Your task to perform on an android device: check the backup settings in the google photos Image 0: 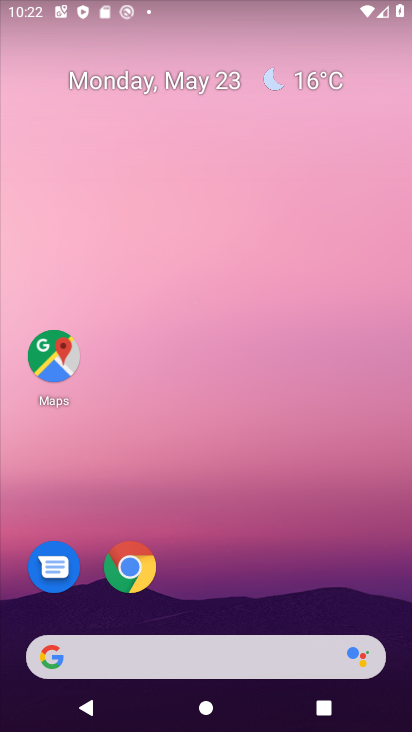
Step 0: drag from (263, 366) to (291, 121)
Your task to perform on an android device: check the backup settings in the google photos Image 1: 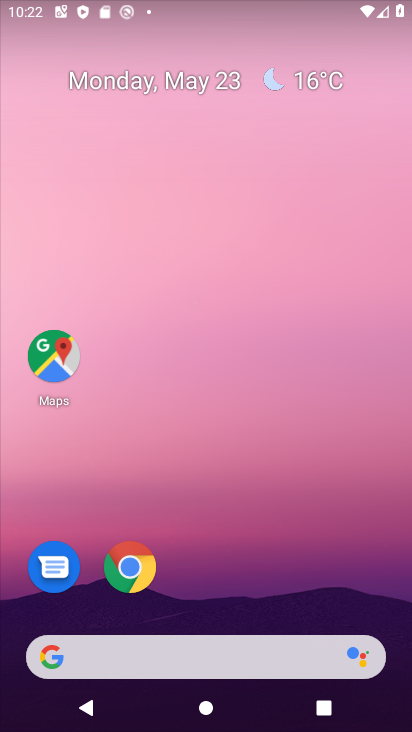
Step 1: drag from (184, 617) to (242, 86)
Your task to perform on an android device: check the backup settings in the google photos Image 2: 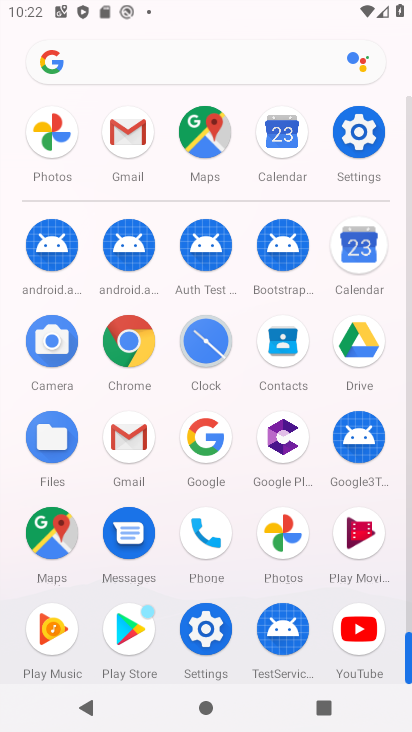
Step 2: click (277, 537)
Your task to perform on an android device: check the backup settings in the google photos Image 3: 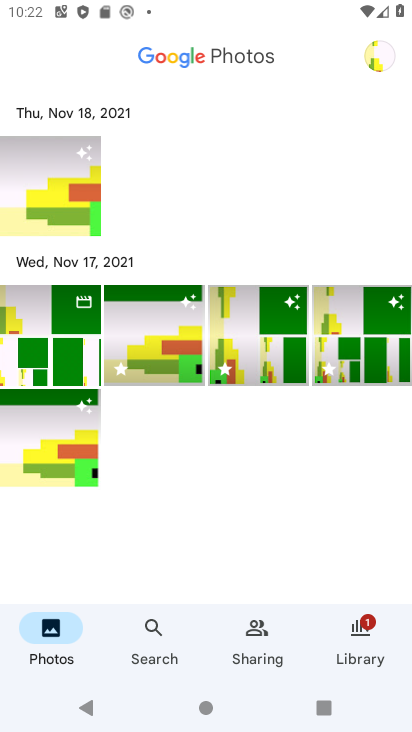
Step 3: click (61, 331)
Your task to perform on an android device: check the backup settings in the google photos Image 4: 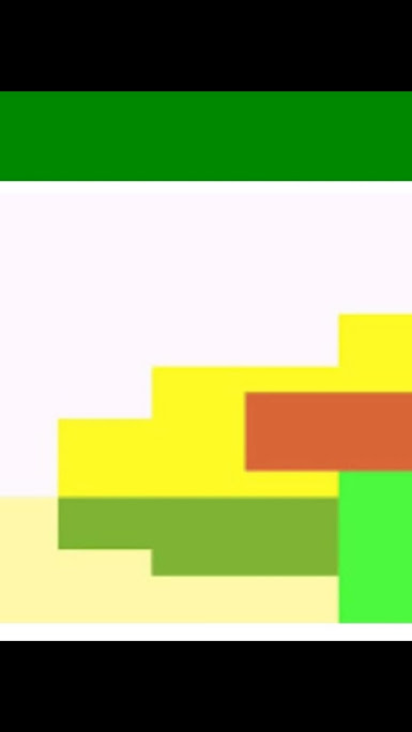
Step 4: drag from (380, 385) to (0, 458)
Your task to perform on an android device: check the backup settings in the google photos Image 5: 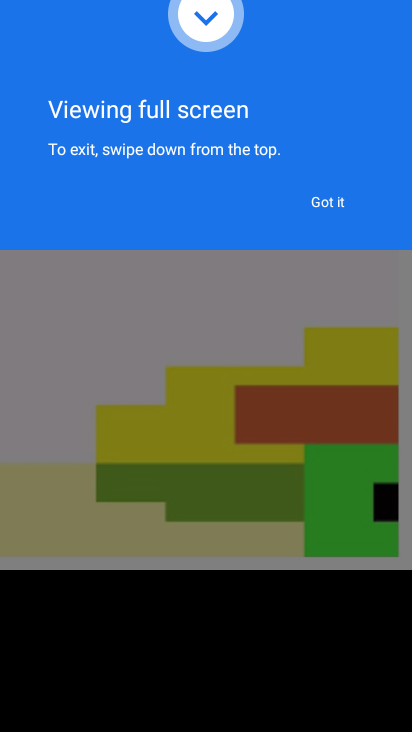
Step 5: click (340, 198)
Your task to perform on an android device: check the backup settings in the google photos Image 6: 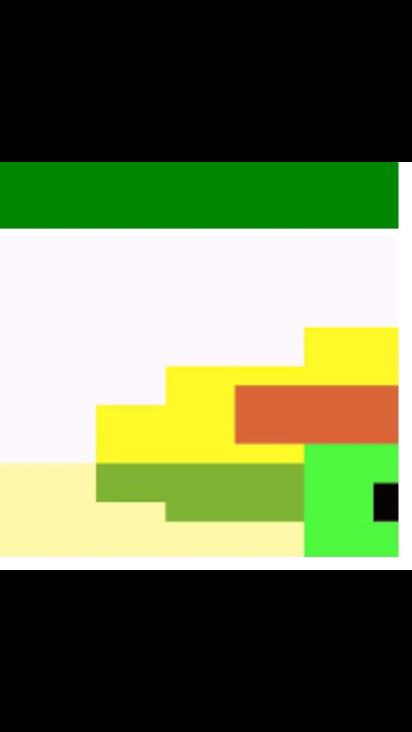
Step 6: drag from (340, 398) to (26, 378)
Your task to perform on an android device: check the backup settings in the google photos Image 7: 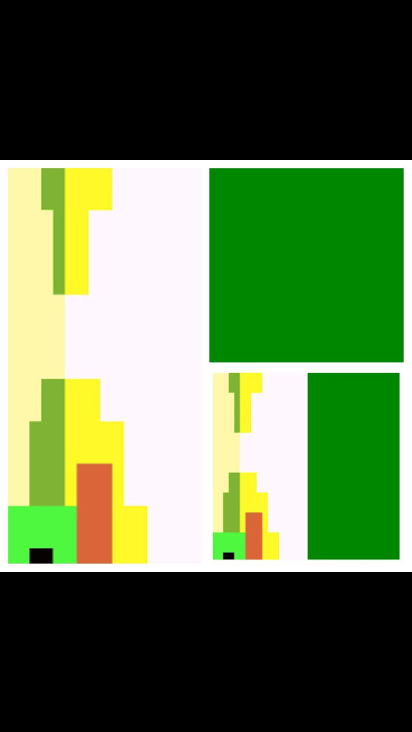
Step 7: drag from (305, 418) to (14, 414)
Your task to perform on an android device: check the backup settings in the google photos Image 8: 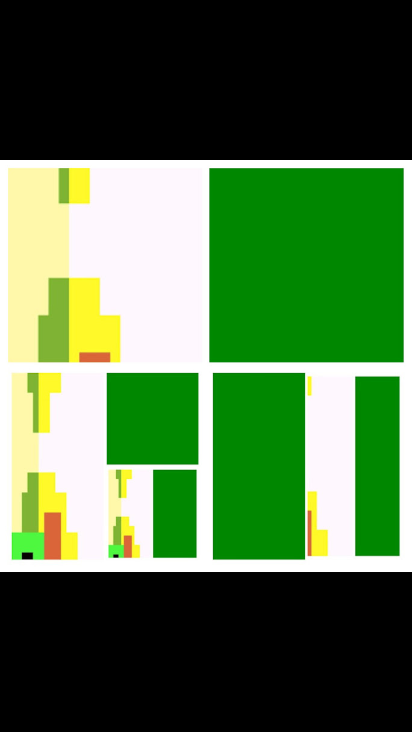
Step 8: drag from (235, 179) to (351, 720)
Your task to perform on an android device: check the backup settings in the google photos Image 9: 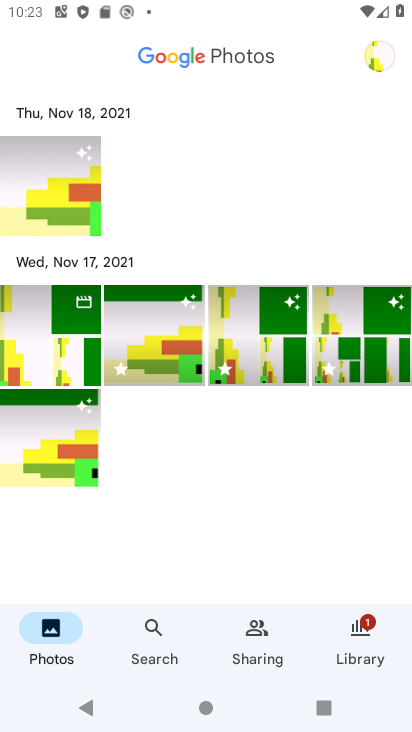
Step 9: drag from (207, 485) to (276, 111)
Your task to perform on an android device: check the backup settings in the google photos Image 10: 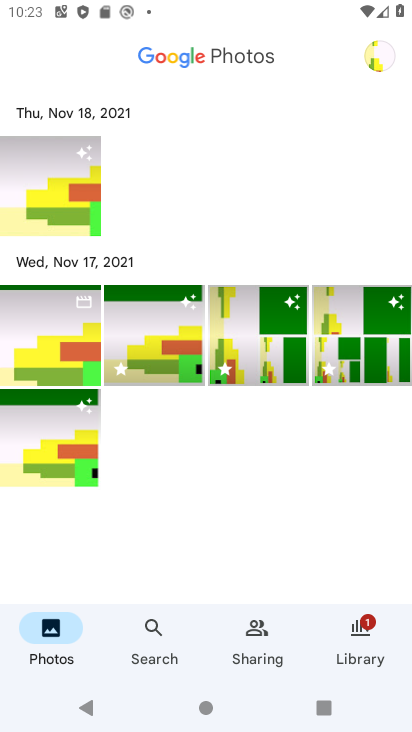
Step 10: drag from (246, 531) to (354, 177)
Your task to perform on an android device: check the backup settings in the google photos Image 11: 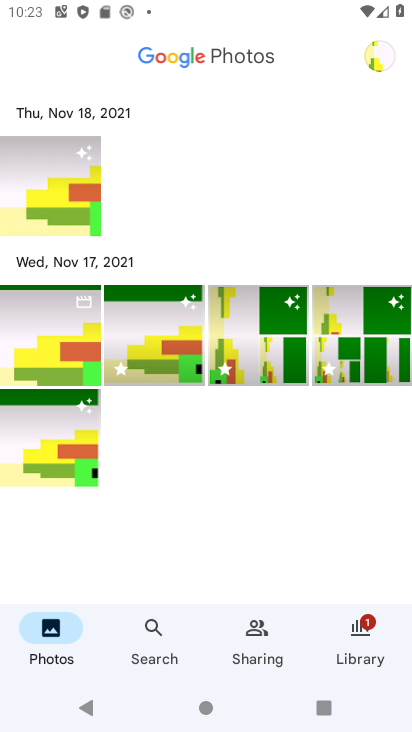
Step 11: click (374, 57)
Your task to perform on an android device: check the backup settings in the google photos Image 12: 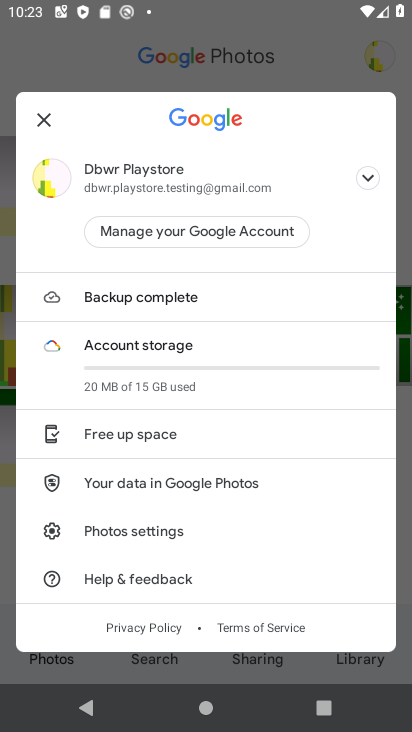
Step 12: drag from (161, 472) to (248, 186)
Your task to perform on an android device: check the backup settings in the google photos Image 13: 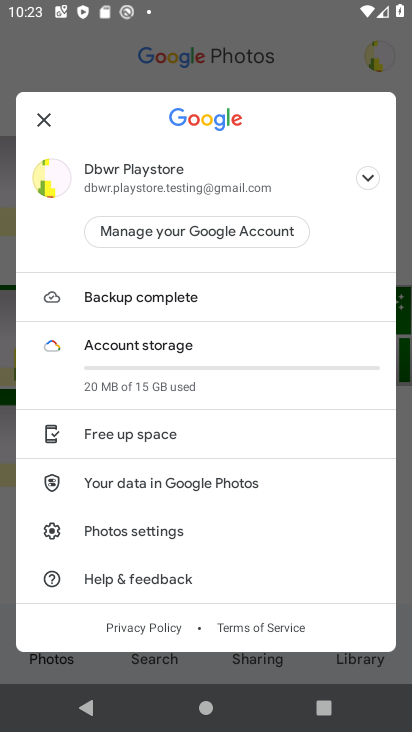
Step 13: click (133, 527)
Your task to perform on an android device: check the backup settings in the google photos Image 14: 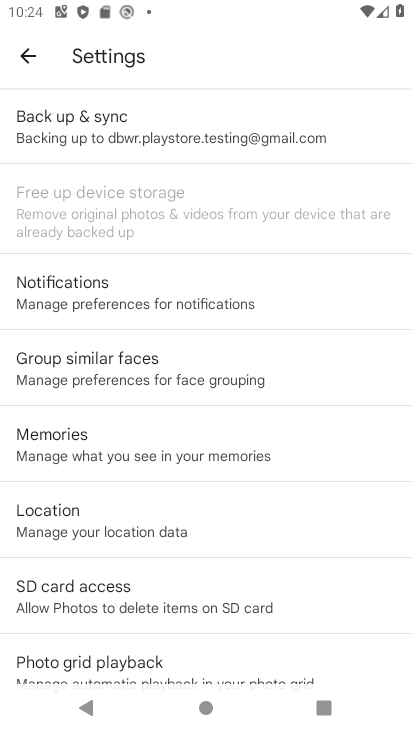
Step 14: click (113, 127)
Your task to perform on an android device: check the backup settings in the google photos Image 15: 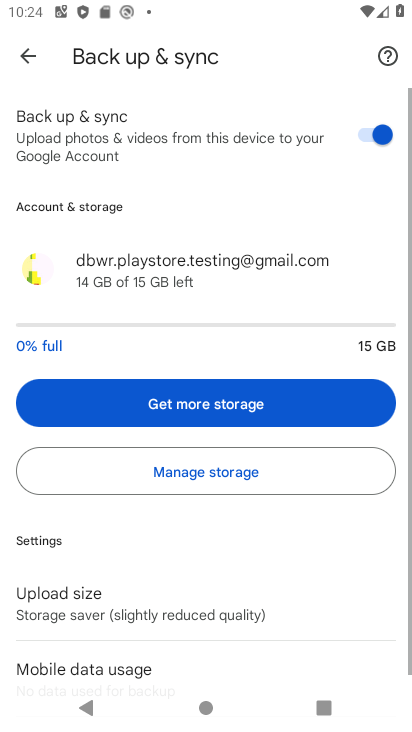
Step 15: task complete